Your task to perform on an android device: Open my contact list Image 0: 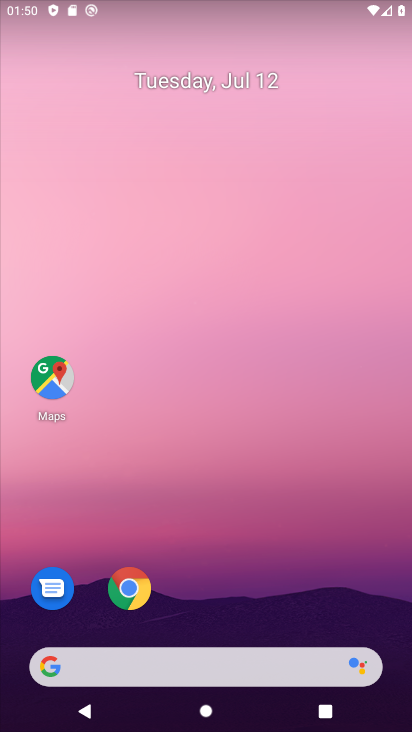
Step 0: drag from (211, 626) to (195, 161)
Your task to perform on an android device: Open my contact list Image 1: 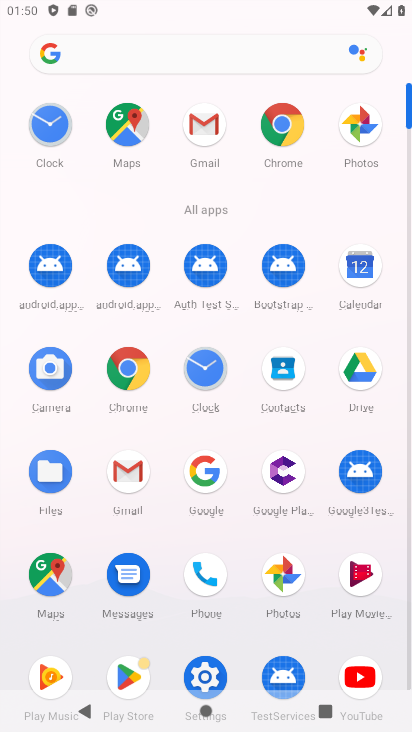
Step 1: click (285, 369)
Your task to perform on an android device: Open my contact list Image 2: 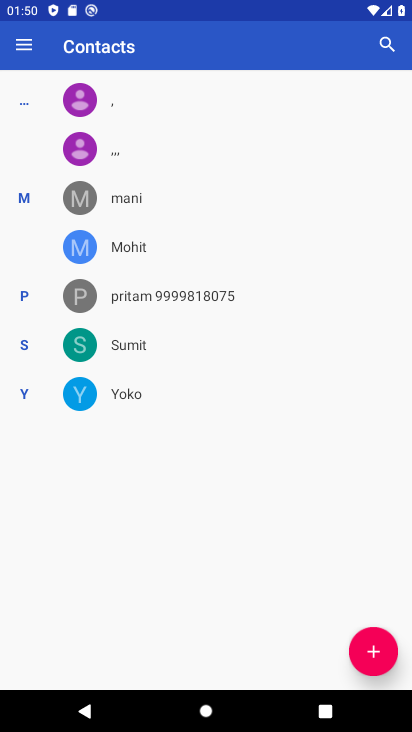
Step 2: task complete